Your task to perform on an android device: turn off translation in the chrome app Image 0: 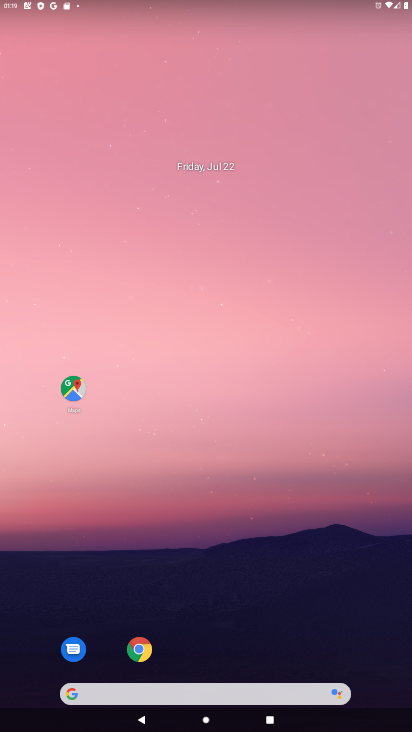
Step 0: drag from (309, 649) to (359, 148)
Your task to perform on an android device: turn off translation in the chrome app Image 1: 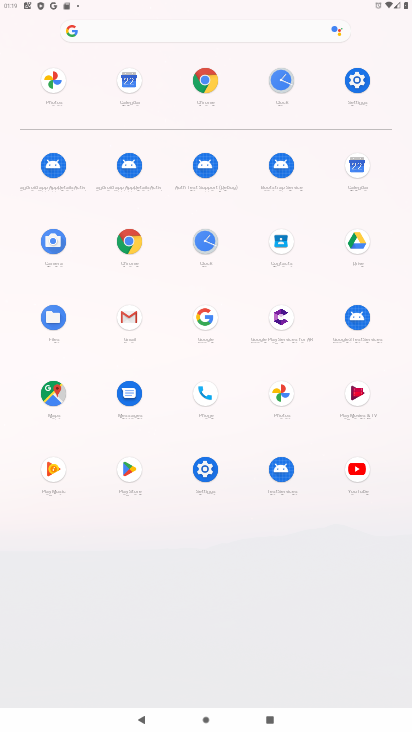
Step 1: click (212, 79)
Your task to perform on an android device: turn off translation in the chrome app Image 2: 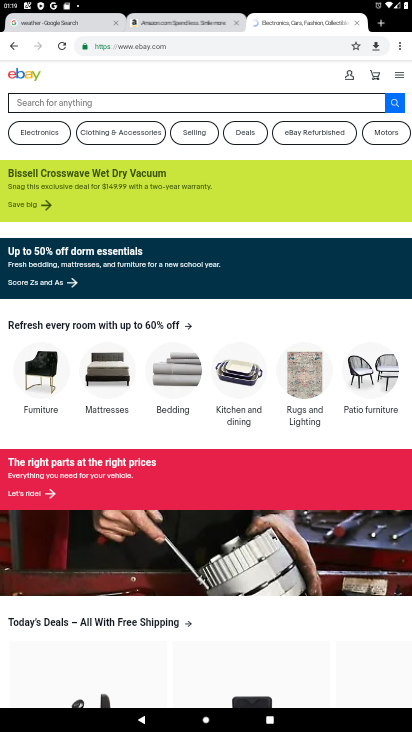
Step 2: drag from (400, 48) to (314, 332)
Your task to perform on an android device: turn off translation in the chrome app Image 3: 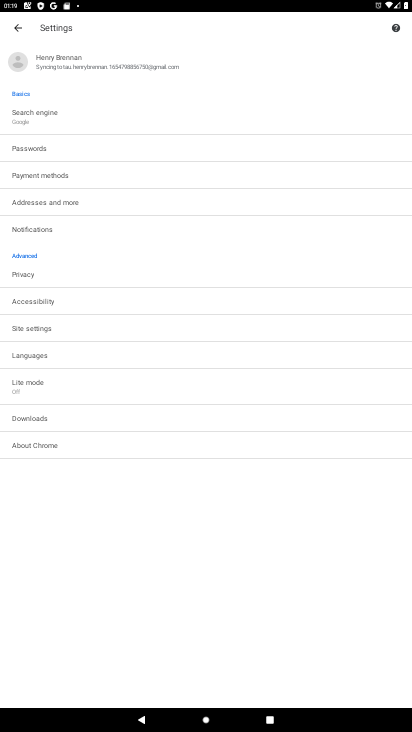
Step 3: click (64, 361)
Your task to perform on an android device: turn off translation in the chrome app Image 4: 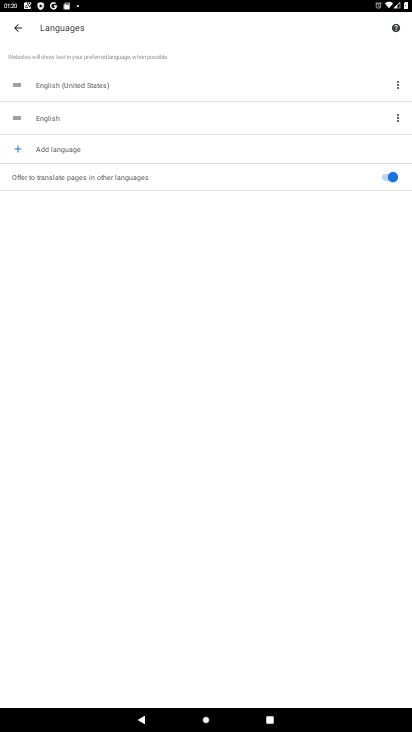
Step 4: click (385, 175)
Your task to perform on an android device: turn off translation in the chrome app Image 5: 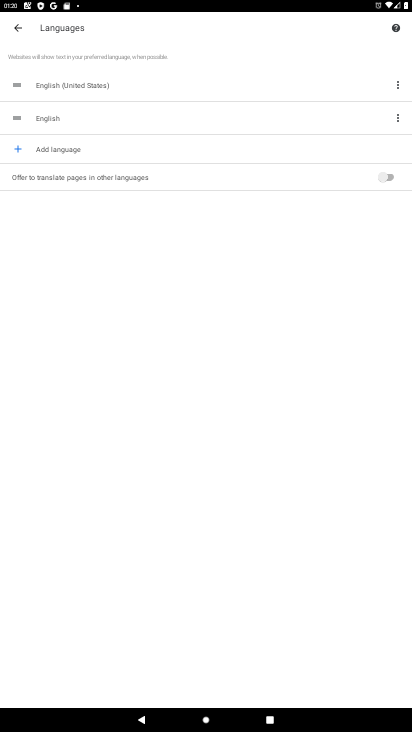
Step 5: task complete